Your task to perform on an android device: open chrome and create a bookmark for the current page Image 0: 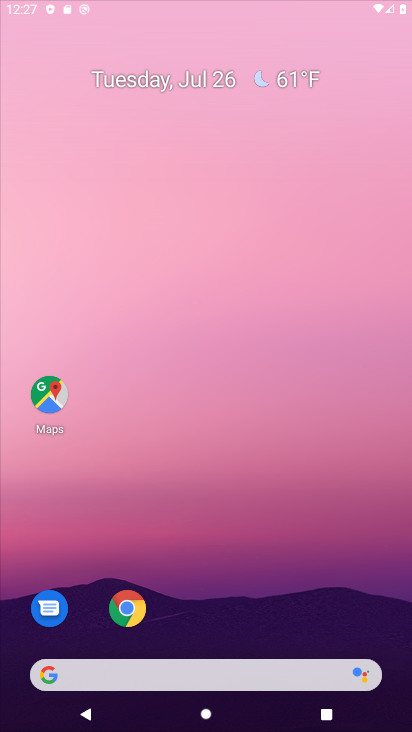
Step 0: press home button
Your task to perform on an android device: open chrome and create a bookmark for the current page Image 1: 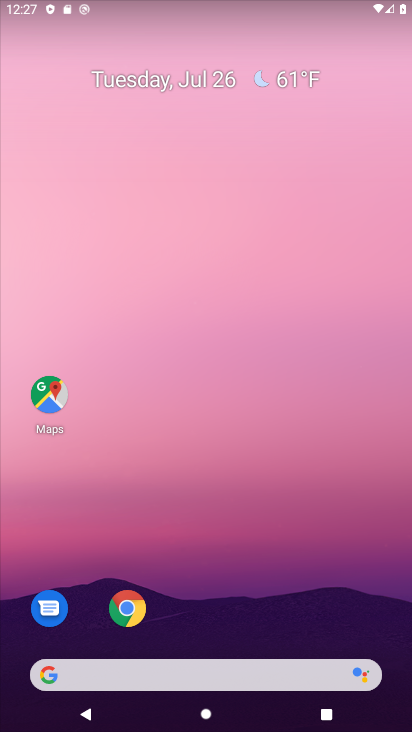
Step 1: drag from (359, 591) to (349, 174)
Your task to perform on an android device: open chrome and create a bookmark for the current page Image 2: 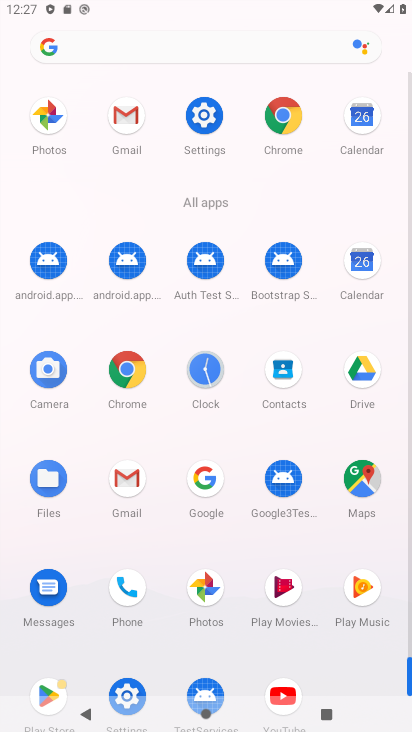
Step 2: click (134, 365)
Your task to perform on an android device: open chrome and create a bookmark for the current page Image 3: 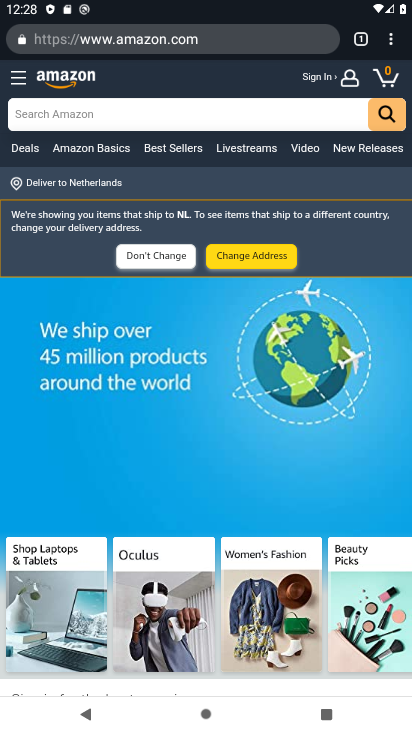
Step 3: click (392, 38)
Your task to perform on an android device: open chrome and create a bookmark for the current page Image 4: 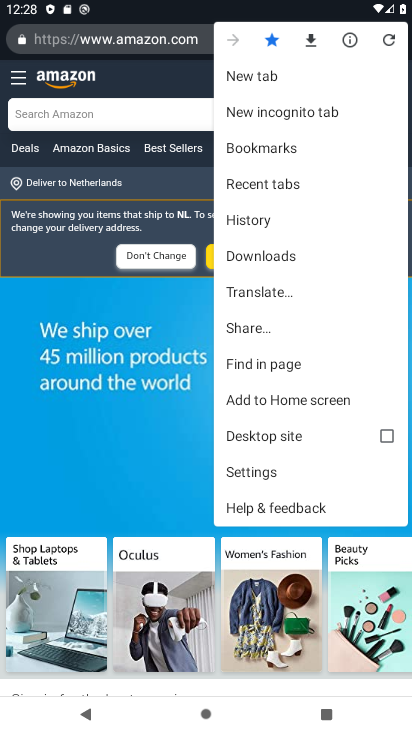
Step 4: task complete